Your task to perform on an android device: turn off location Image 0: 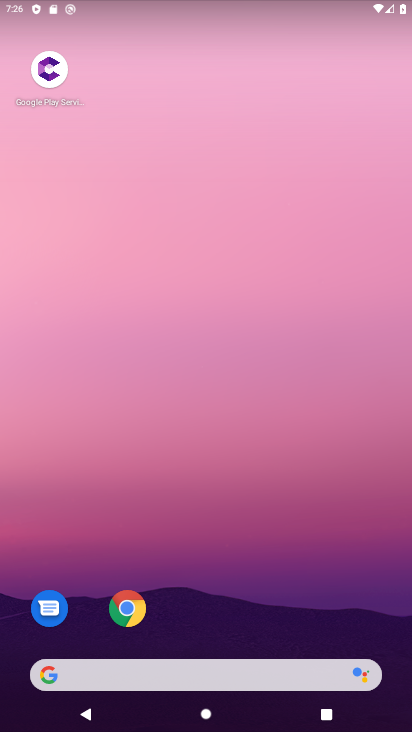
Step 0: drag from (348, 1) to (346, 432)
Your task to perform on an android device: turn off location Image 1: 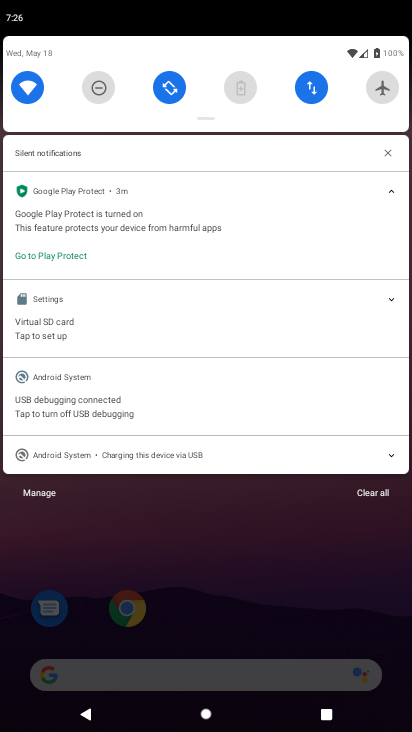
Step 1: drag from (262, 115) to (259, 478)
Your task to perform on an android device: turn off location Image 2: 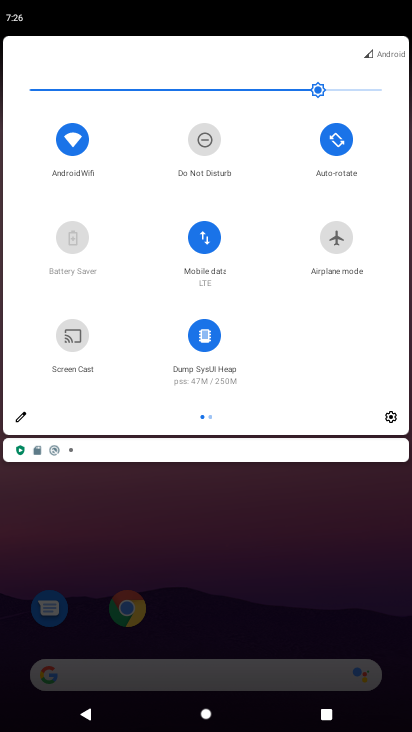
Step 2: drag from (324, 312) to (40, 249)
Your task to perform on an android device: turn off location Image 3: 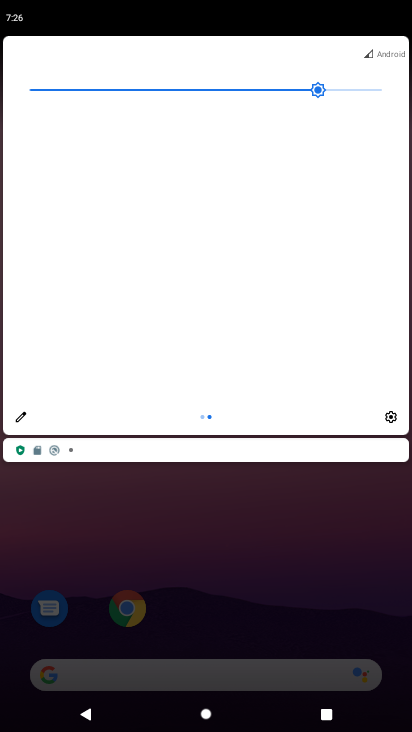
Step 3: click (19, 413)
Your task to perform on an android device: turn off location Image 4: 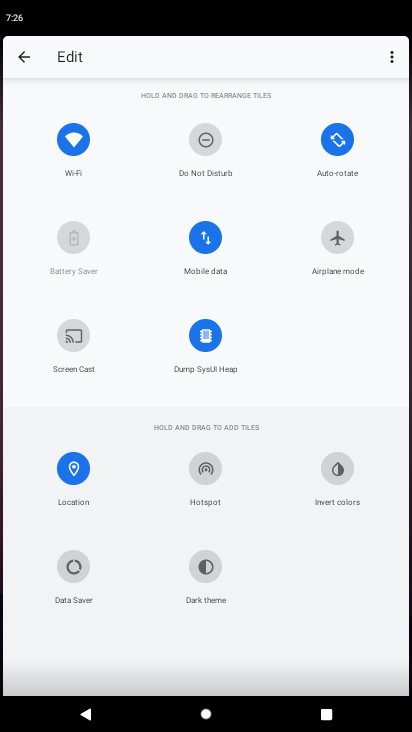
Step 4: drag from (64, 476) to (290, 353)
Your task to perform on an android device: turn off location Image 5: 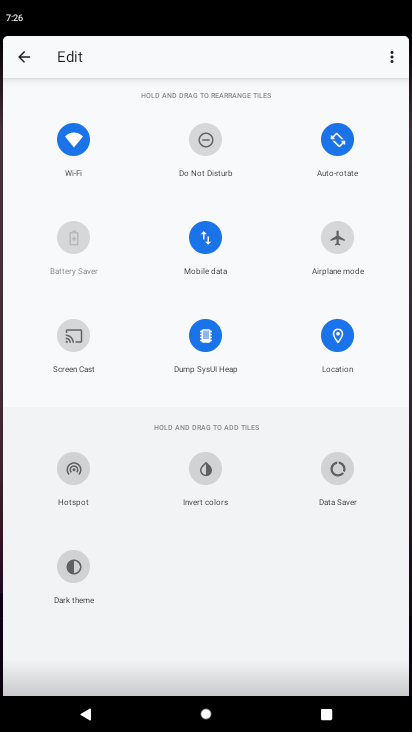
Step 5: click (30, 51)
Your task to perform on an android device: turn off location Image 6: 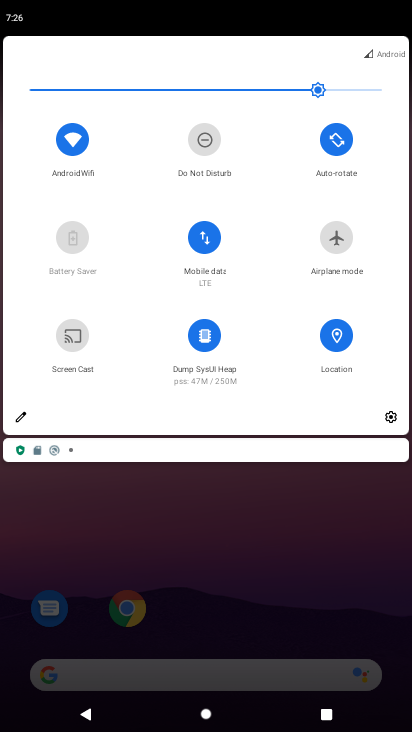
Step 6: click (329, 339)
Your task to perform on an android device: turn off location Image 7: 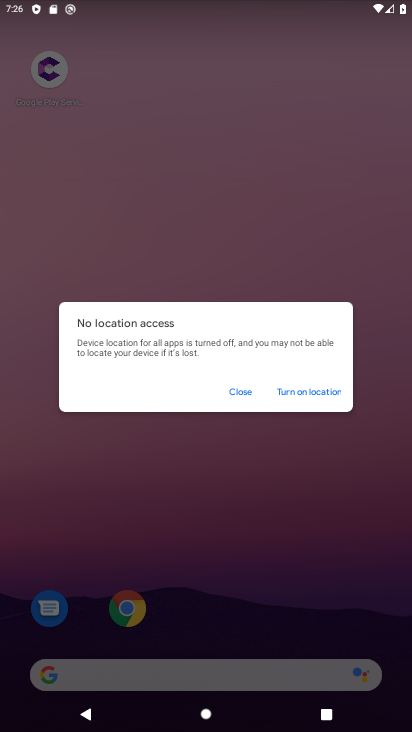
Step 7: task complete